Your task to perform on an android device: turn off priority inbox in the gmail app Image 0: 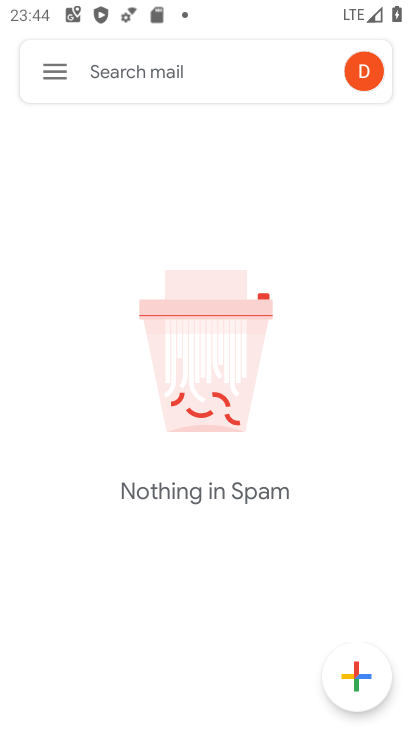
Step 0: press home button
Your task to perform on an android device: turn off priority inbox in the gmail app Image 1: 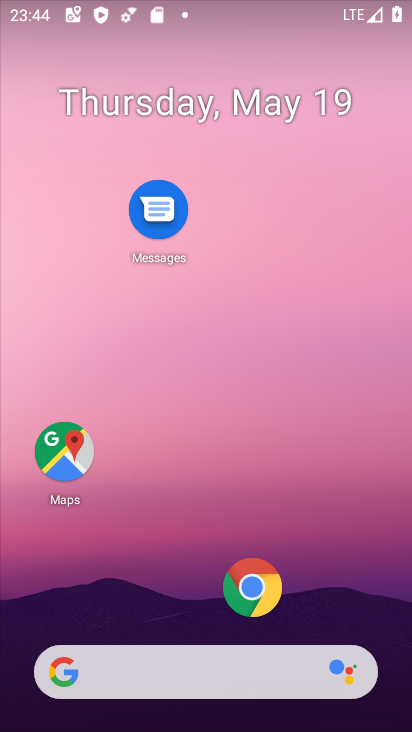
Step 1: drag from (170, 606) to (143, 123)
Your task to perform on an android device: turn off priority inbox in the gmail app Image 2: 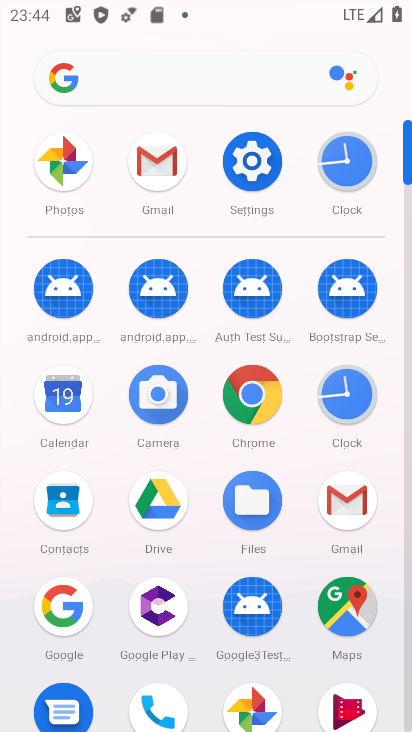
Step 2: click (161, 163)
Your task to perform on an android device: turn off priority inbox in the gmail app Image 3: 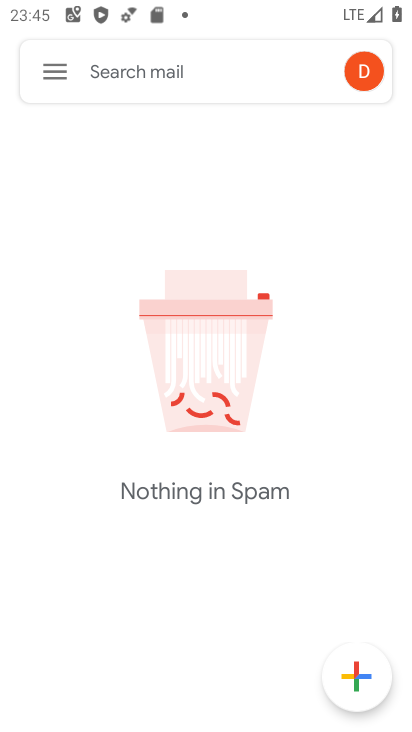
Step 3: click (43, 86)
Your task to perform on an android device: turn off priority inbox in the gmail app Image 4: 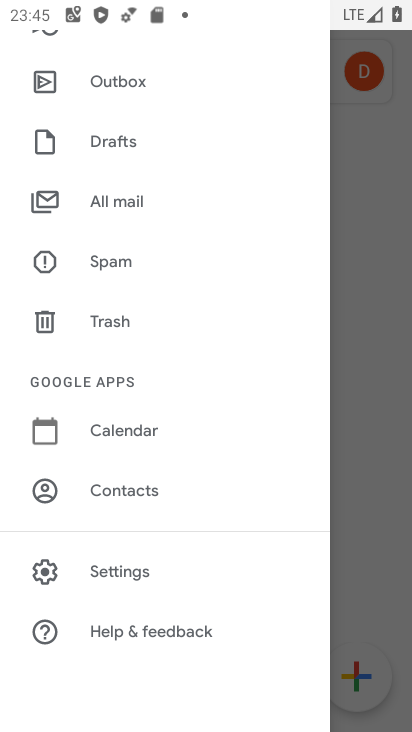
Step 4: click (112, 575)
Your task to perform on an android device: turn off priority inbox in the gmail app Image 5: 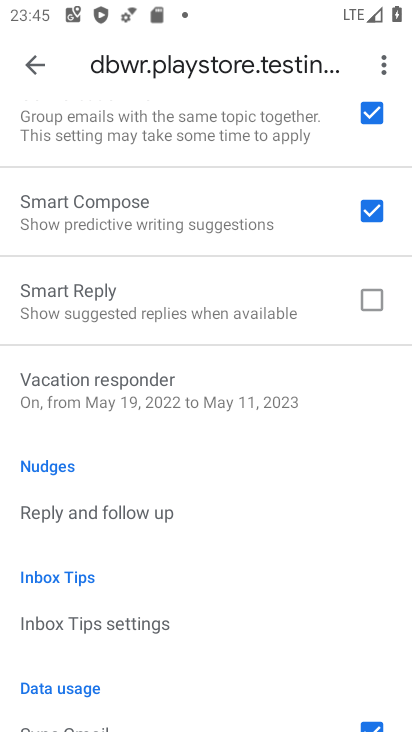
Step 5: drag from (77, 649) to (98, 247)
Your task to perform on an android device: turn off priority inbox in the gmail app Image 6: 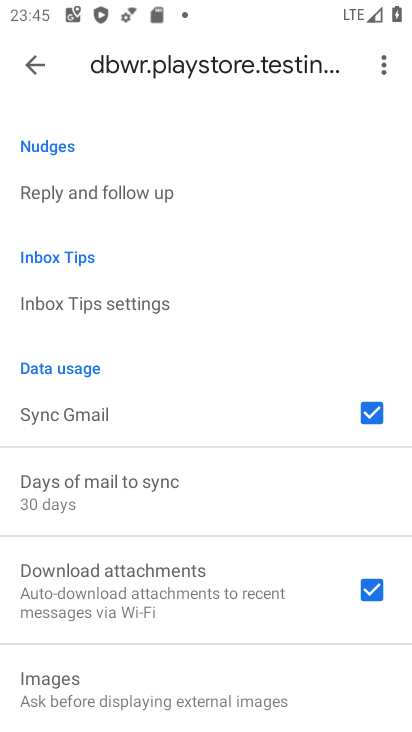
Step 6: drag from (217, 172) to (193, 437)
Your task to perform on an android device: turn off priority inbox in the gmail app Image 7: 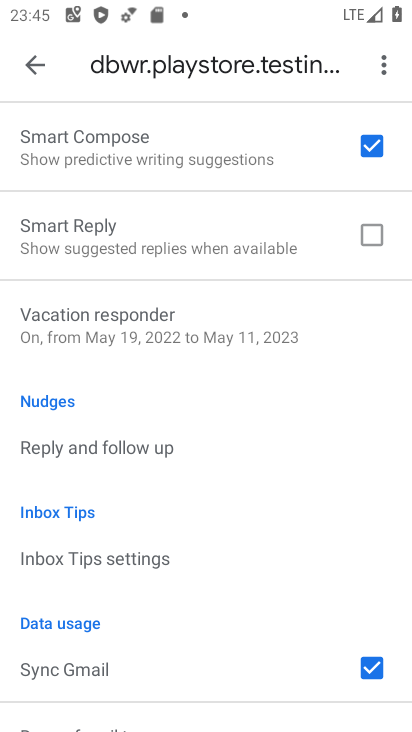
Step 7: drag from (161, 177) to (139, 432)
Your task to perform on an android device: turn off priority inbox in the gmail app Image 8: 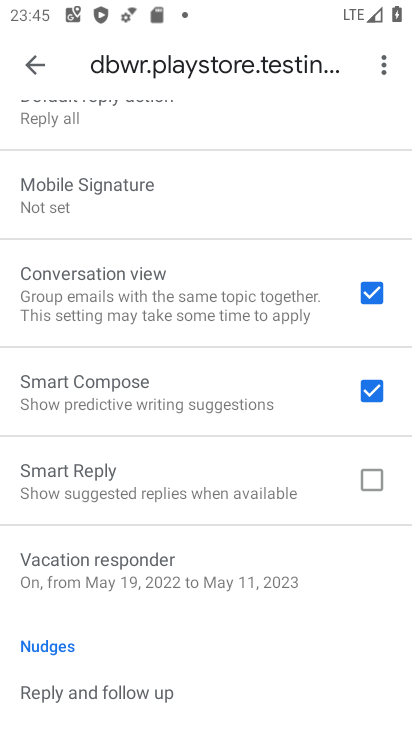
Step 8: drag from (79, 161) to (79, 648)
Your task to perform on an android device: turn off priority inbox in the gmail app Image 9: 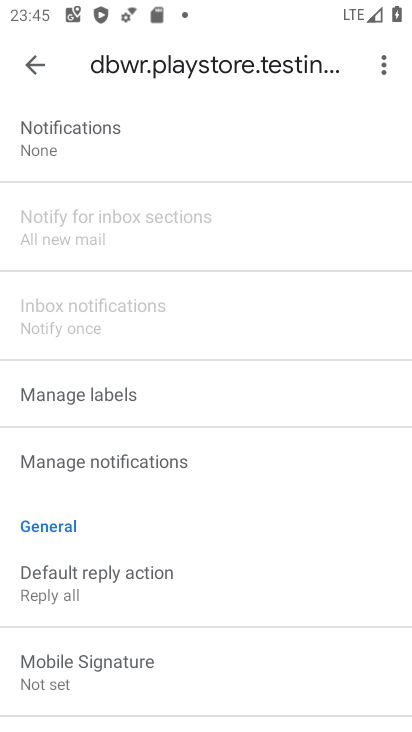
Step 9: drag from (165, 154) to (126, 495)
Your task to perform on an android device: turn off priority inbox in the gmail app Image 10: 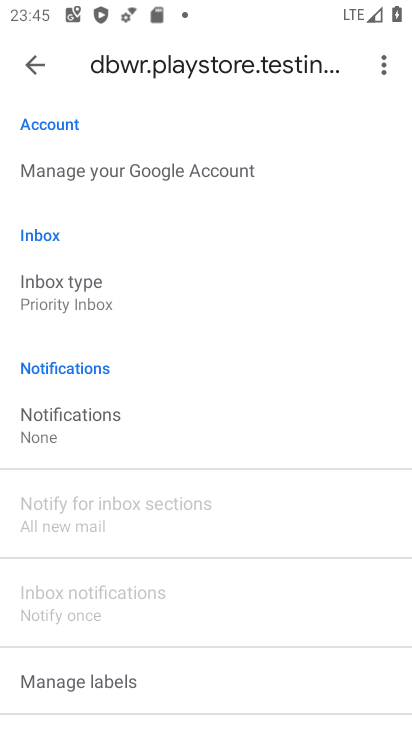
Step 10: click (140, 289)
Your task to perform on an android device: turn off priority inbox in the gmail app Image 11: 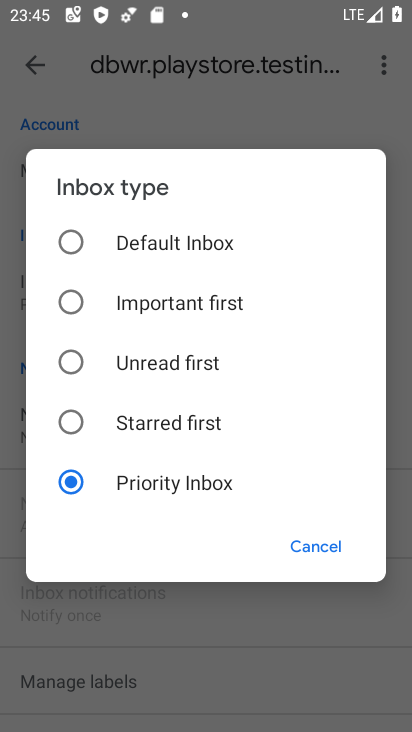
Step 11: click (149, 313)
Your task to perform on an android device: turn off priority inbox in the gmail app Image 12: 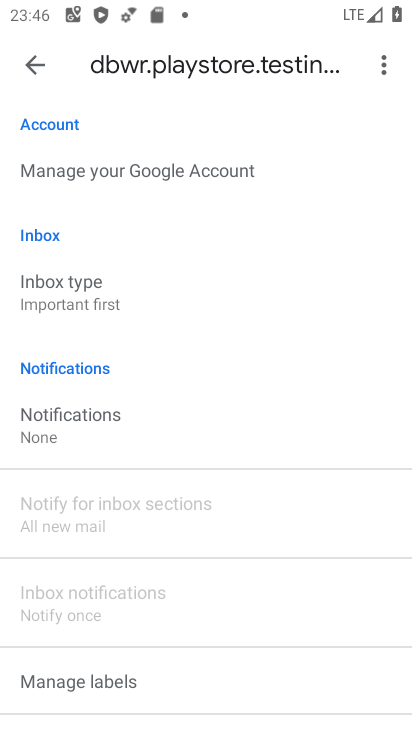
Step 12: task complete